Your task to perform on an android device: Look up the best selling books on Goodreads. Image 0: 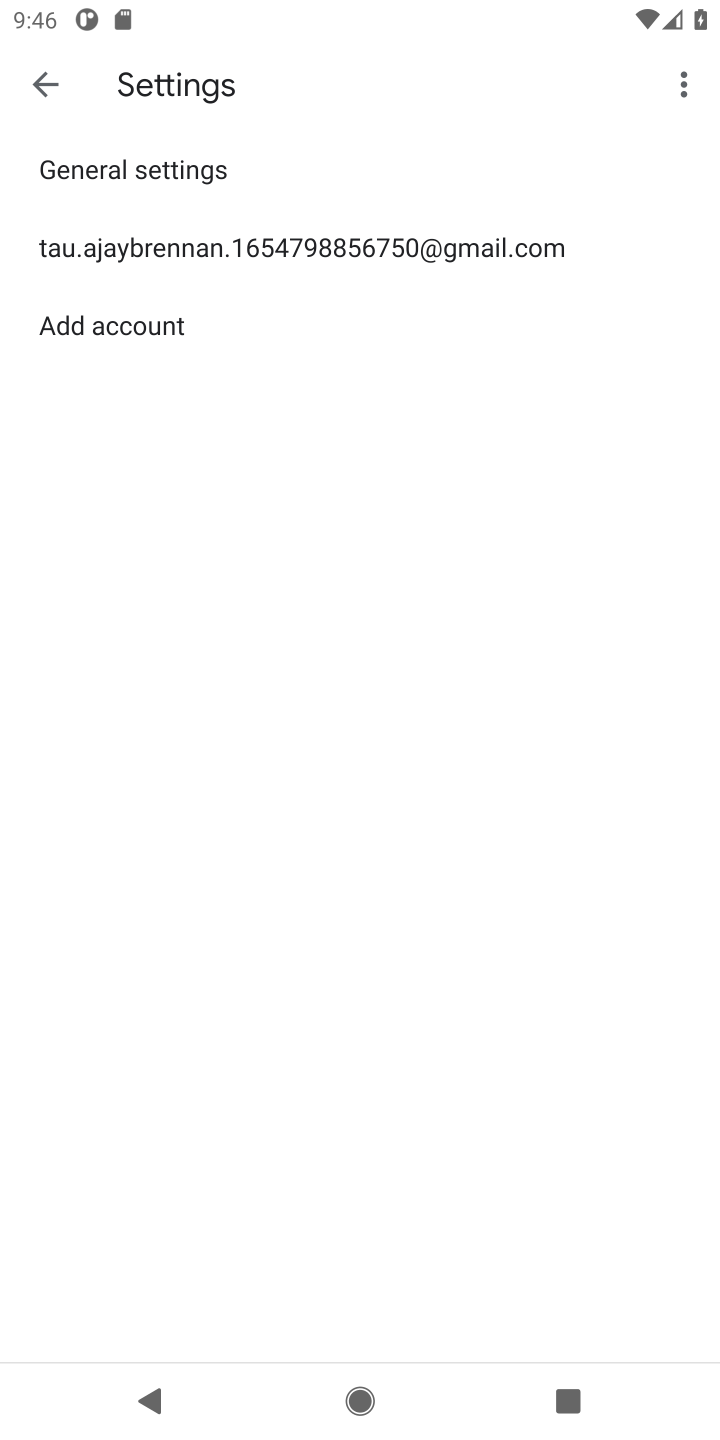
Step 0: press home button
Your task to perform on an android device: Look up the best selling books on Goodreads. Image 1: 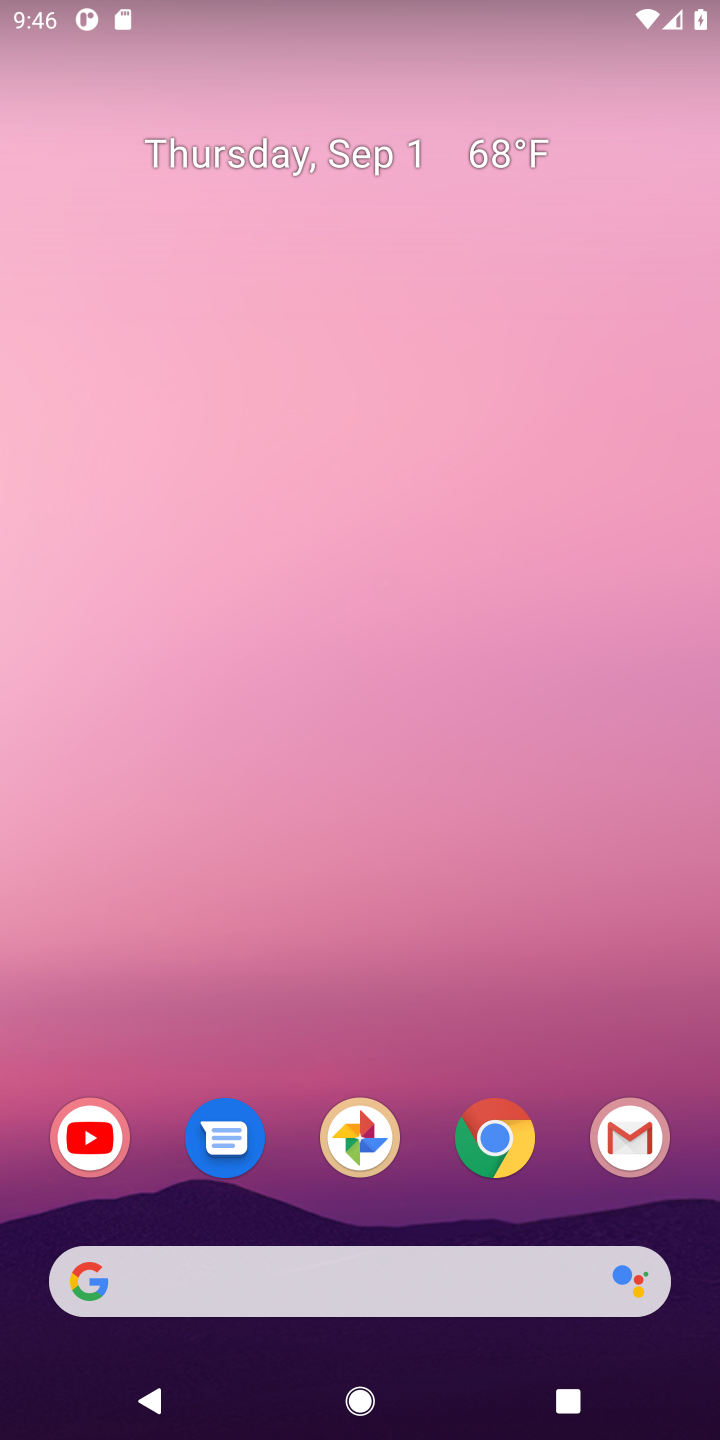
Step 1: click (491, 1152)
Your task to perform on an android device: Look up the best selling books on Goodreads. Image 2: 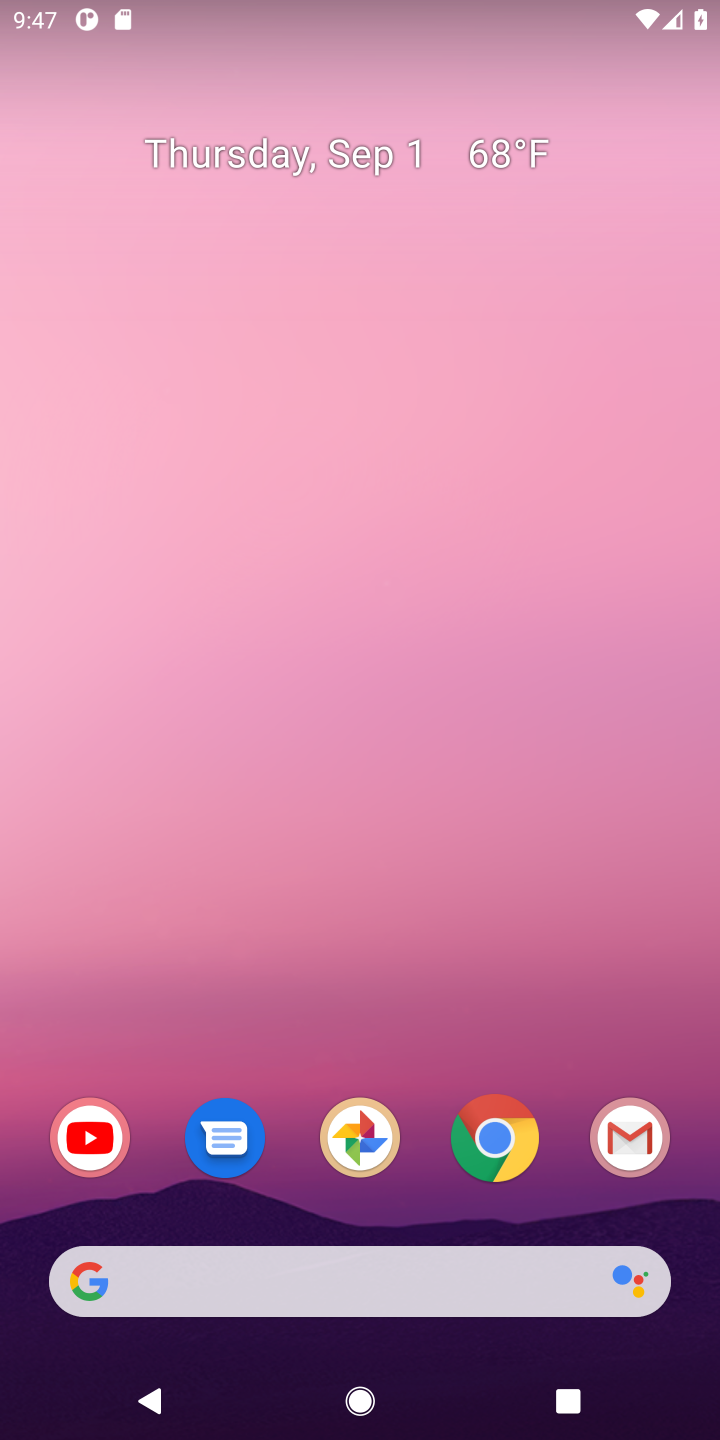
Step 2: click (491, 1152)
Your task to perform on an android device: Look up the best selling books on Goodreads. Image 3: 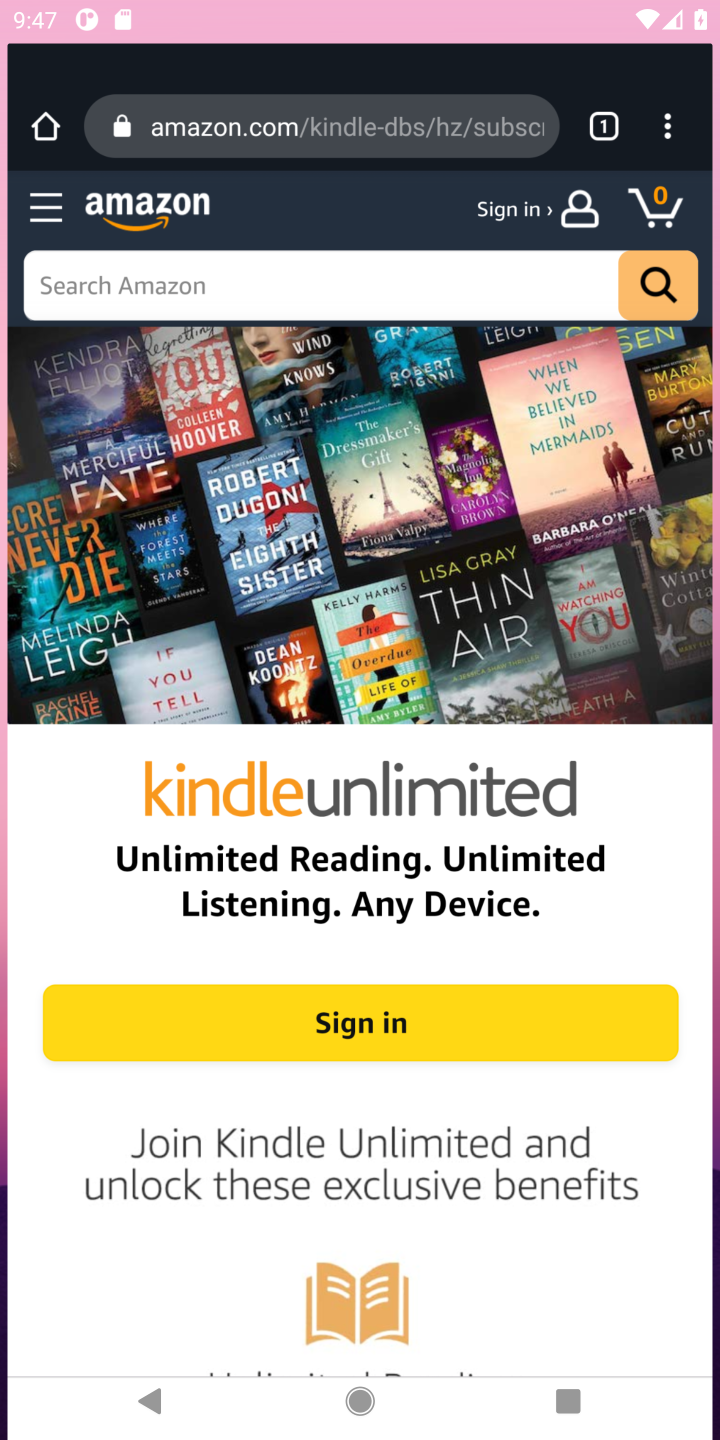
Step 3: click (491, 1152)
Your task to perform on an android device: Look up the best selling books on Goodreads. Image 4: 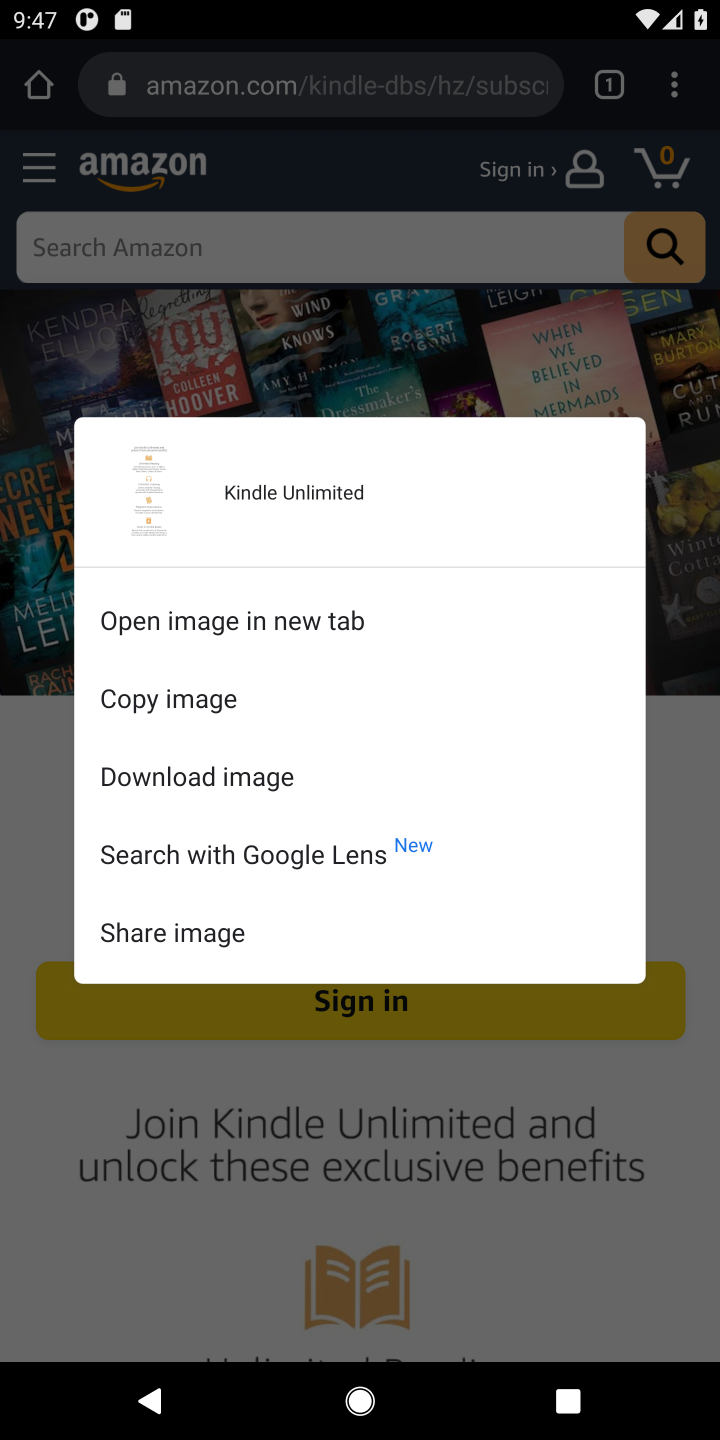
Step 4: click (275, 1182)
Your task to perform on an android device: Look up the best selling books on Goodreads. Image 5: 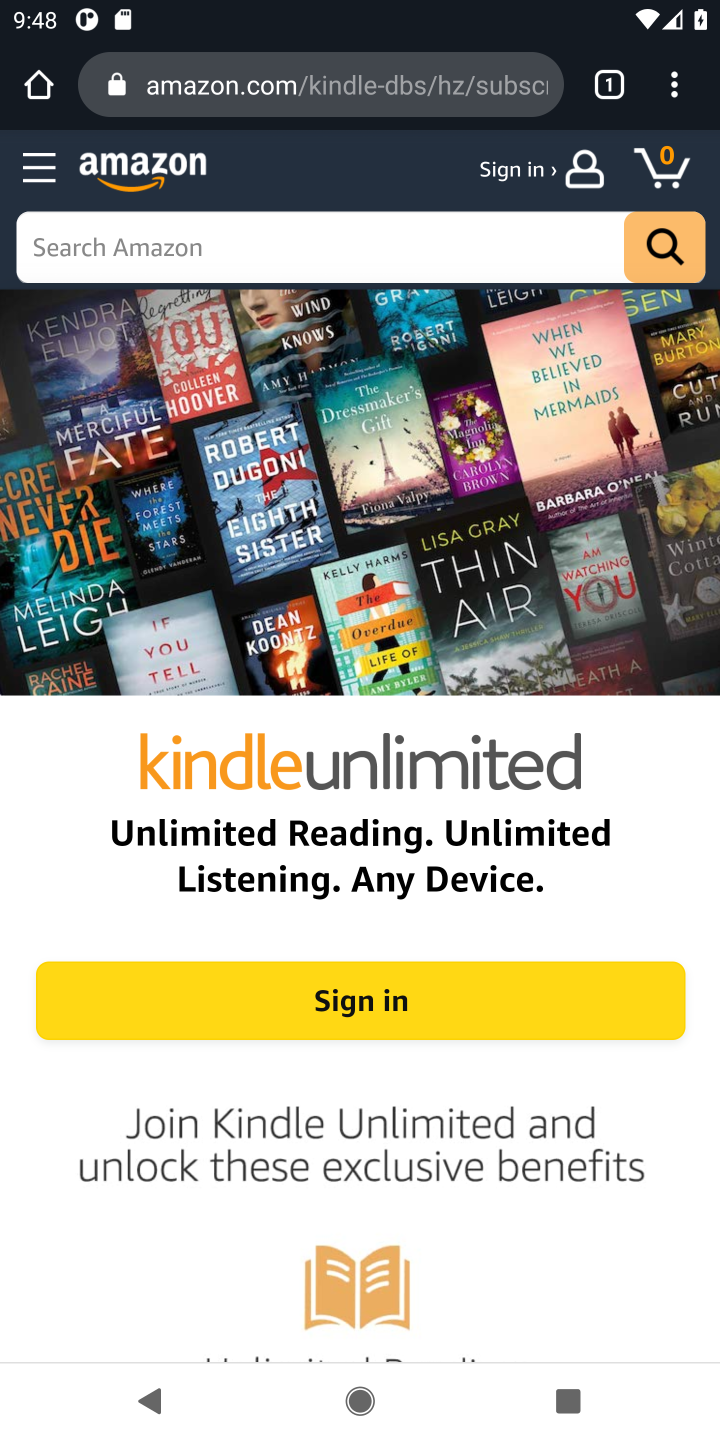
Step 5: click (397, 89)
Your task to perform on an android device: Look up the best selling books on Goodreads. Image 6: 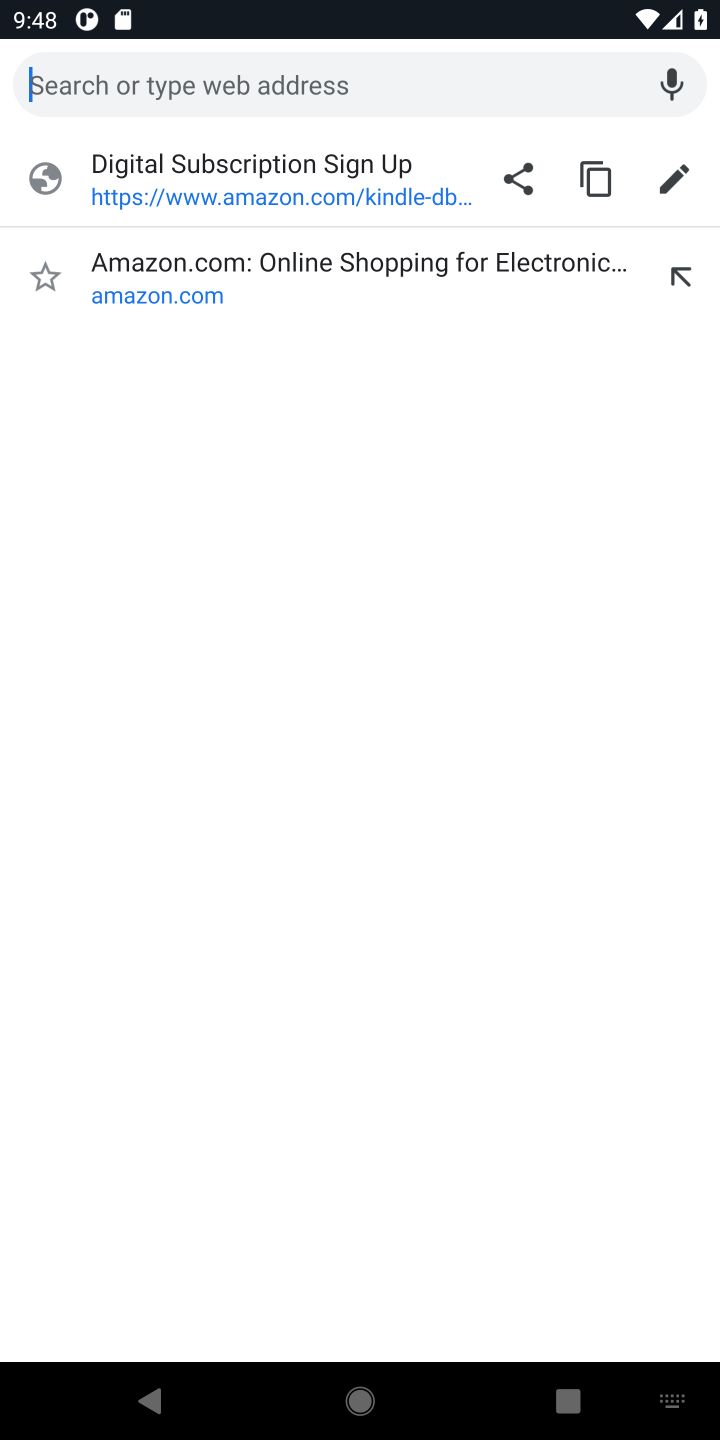
Step 6: type "best selling books on Goodreads"
Your task to perform on an android device: Look up the best selling books on Goodreads. Image 7: 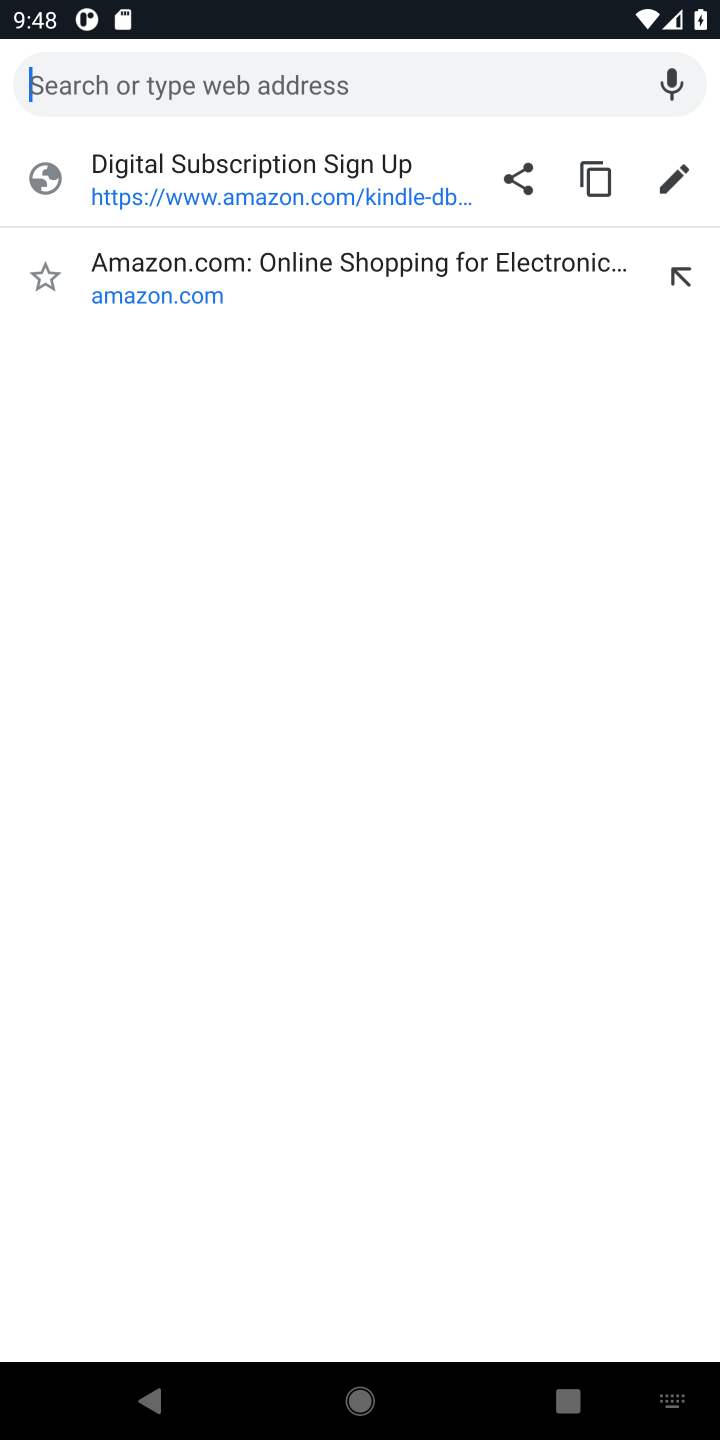
Step 7: click (333, 182)
Your task to perform on an android device: Look up the best selling books on Goodreads. Image 8: 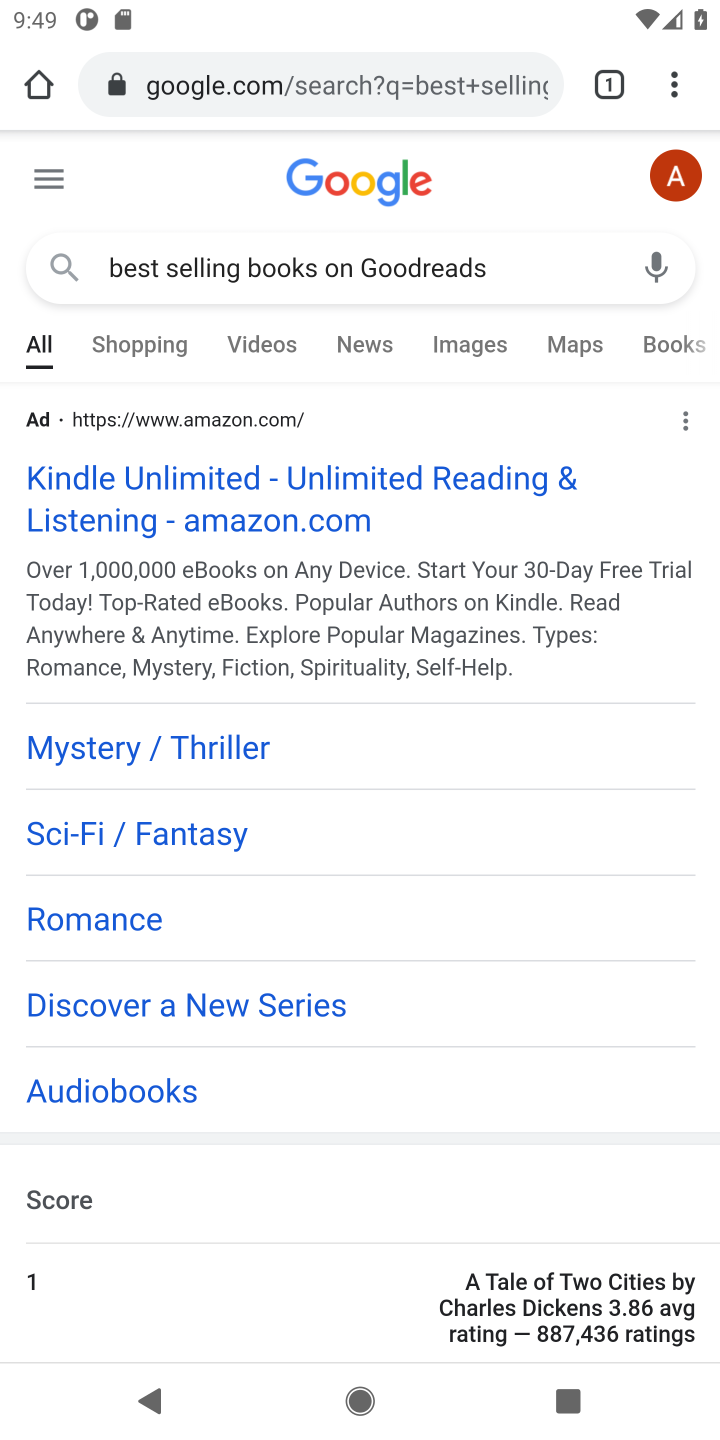
Step 8: click (219, 484)
Your task to perform on an android device: Look up the best selling books on Goodreads. Image 9: 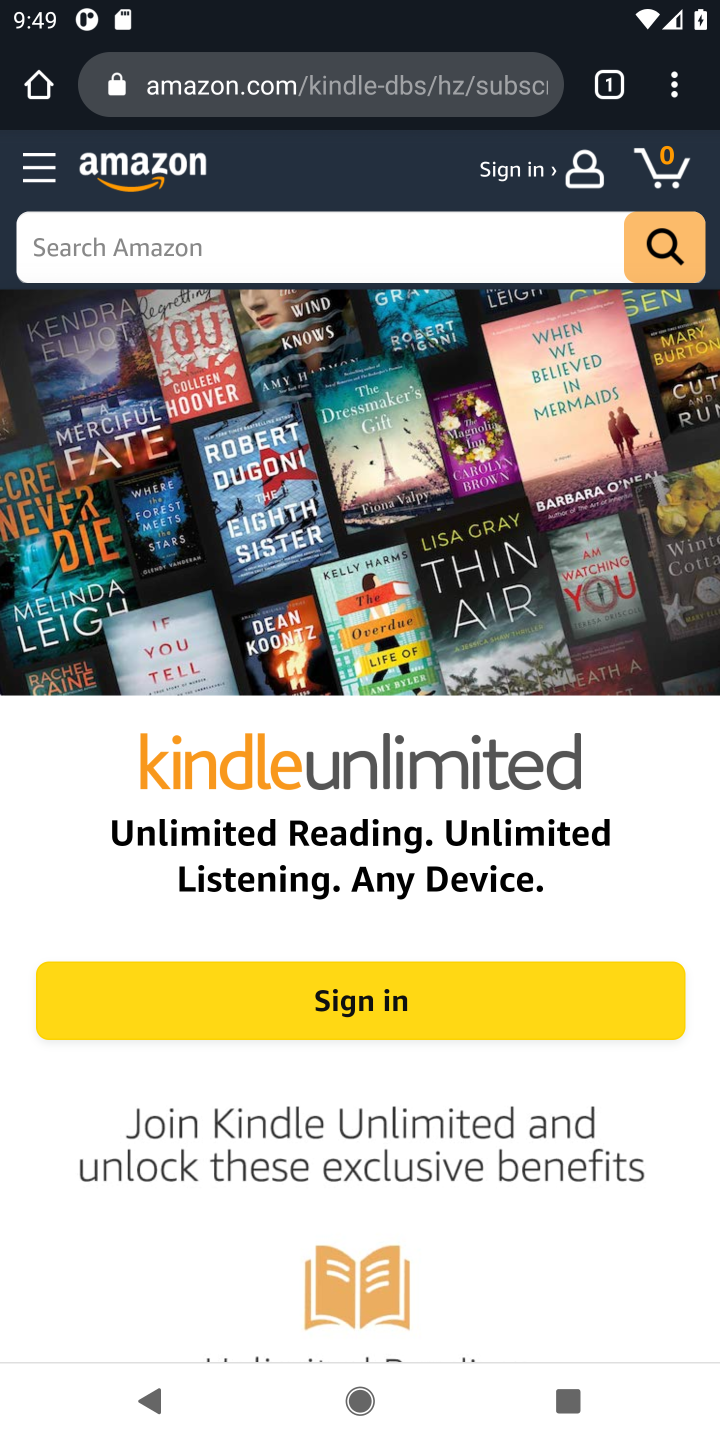
Step 9: task complete